Your task to perform on an android device: set the stopwatch Image 0: 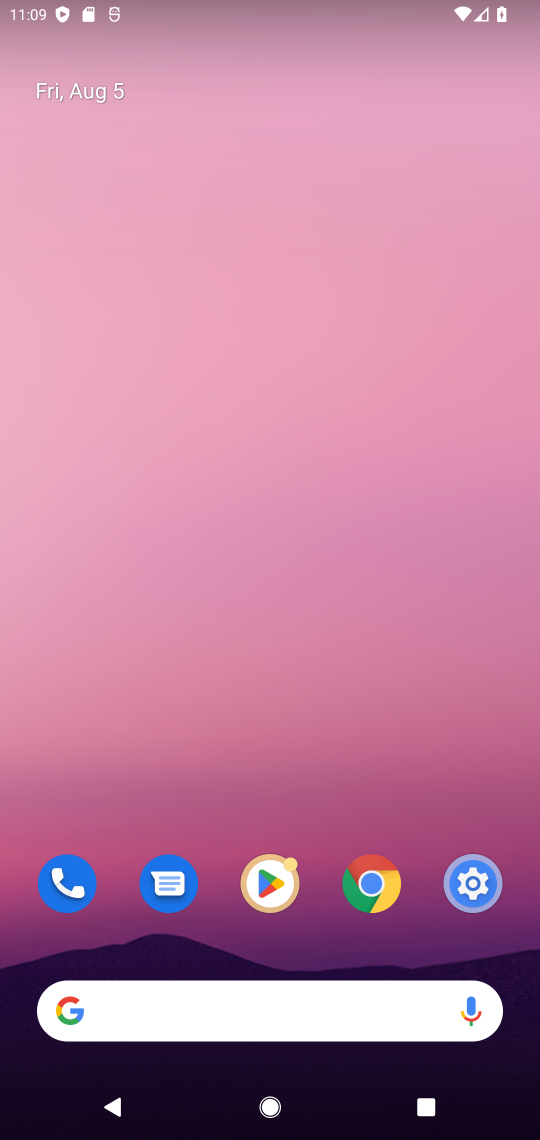
Step 0: drag from (347, 790) to (278, 101)
Your task to perform on an android device: set the stopwatch Image 1: 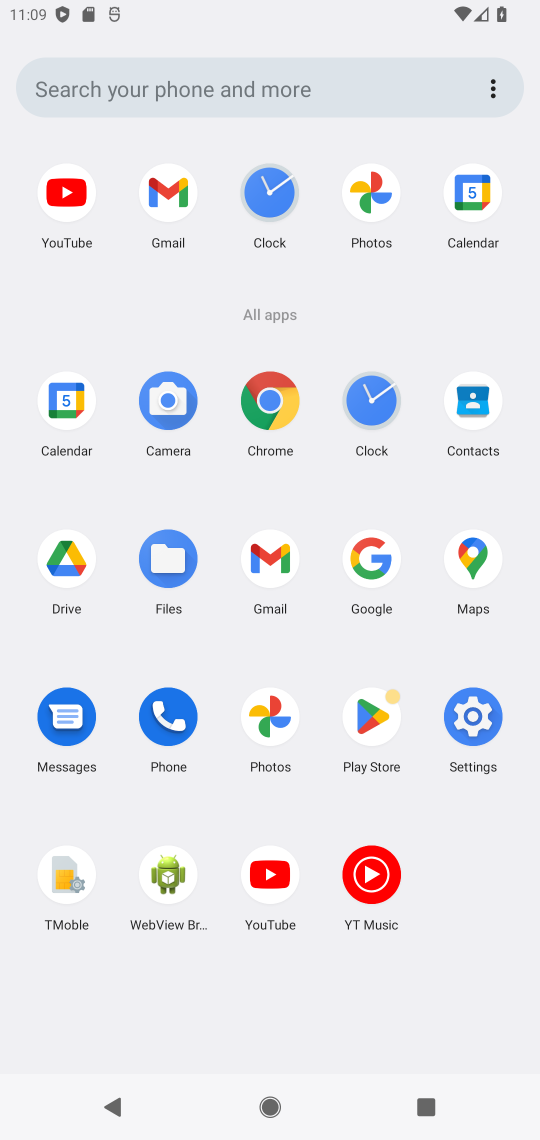
Step 1: click (364, 418)
Your task to perform on an android device: set the stopwatch Image 2: 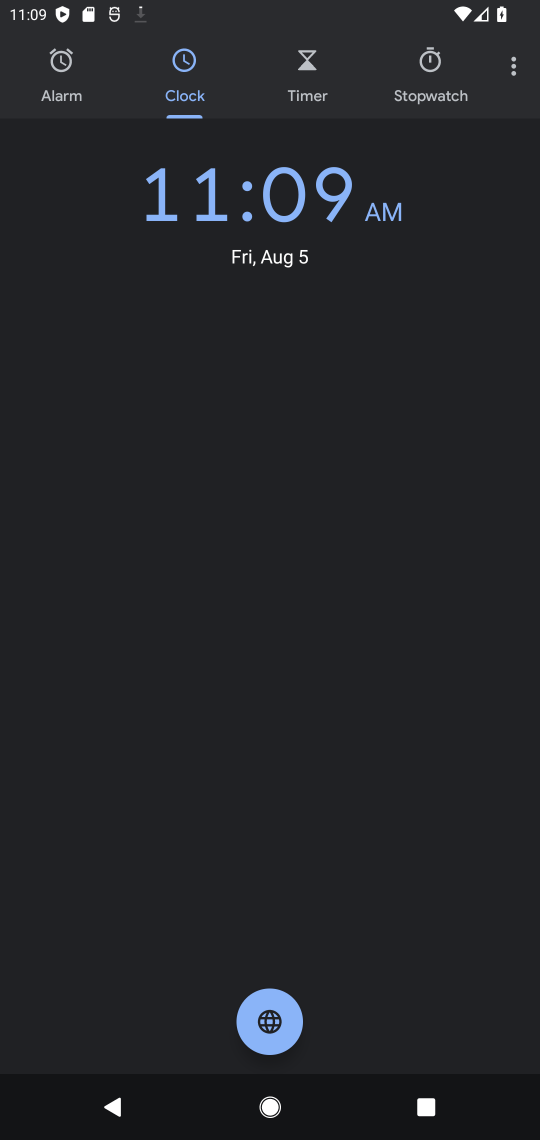
Step 2: click (425, 82)
Your task to perform on an android device: set the stopwatch Image 3: 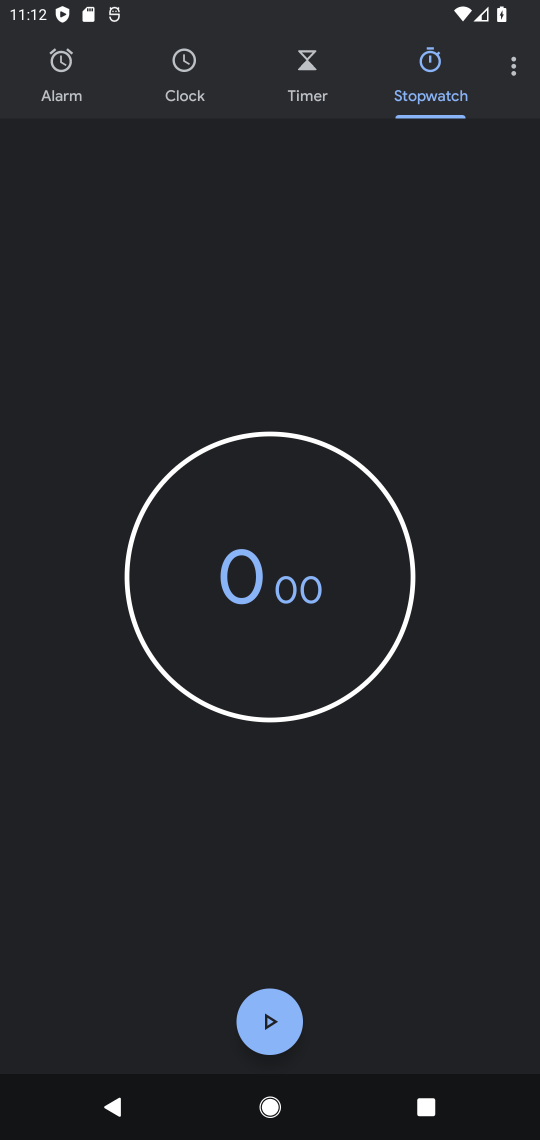
Step 3: task complete